Your task to perform on an android device: Clear the shopping cart on bestbuy. Add "sony triple a" to the cart on bestbuy Image 0: 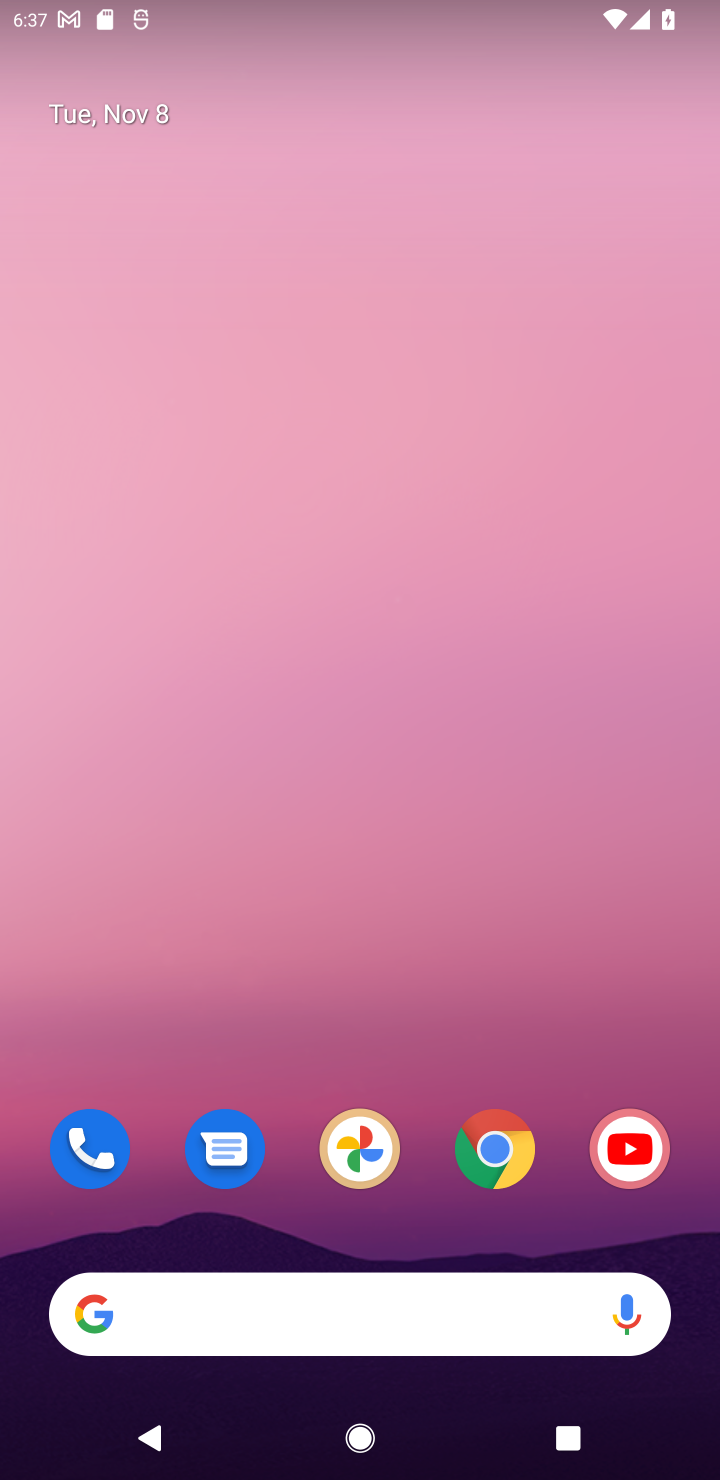
Step 0: click (493, 1127)
Your task to perform on an android device: Clear the shopping cart on bestbuy. Add "sony triple a" to the cart on bestbuy Image 1: 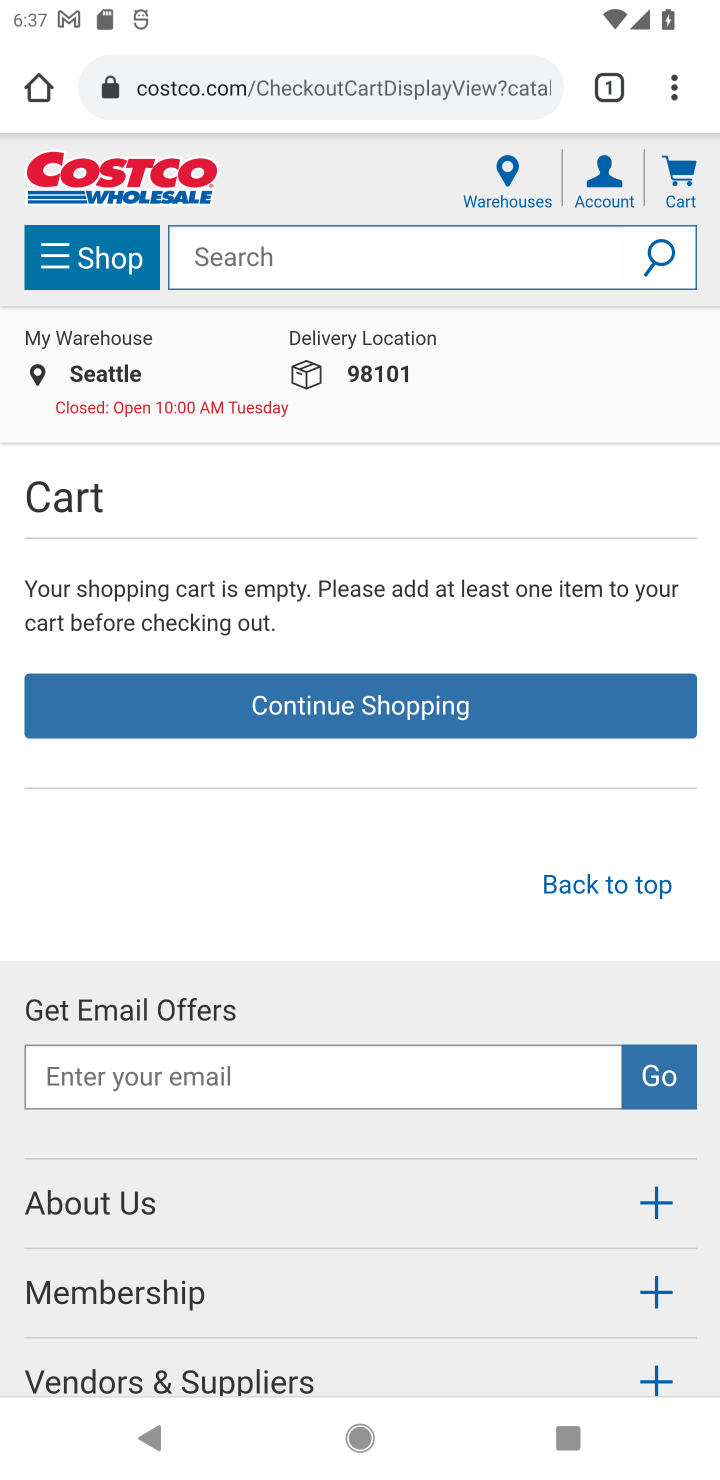
Step 1: click (386, 88)
Your task to perform on an android device: Clear the shopping cart on bestbuy. Add "sony triple a" to the cart on bestbuy Image 2: 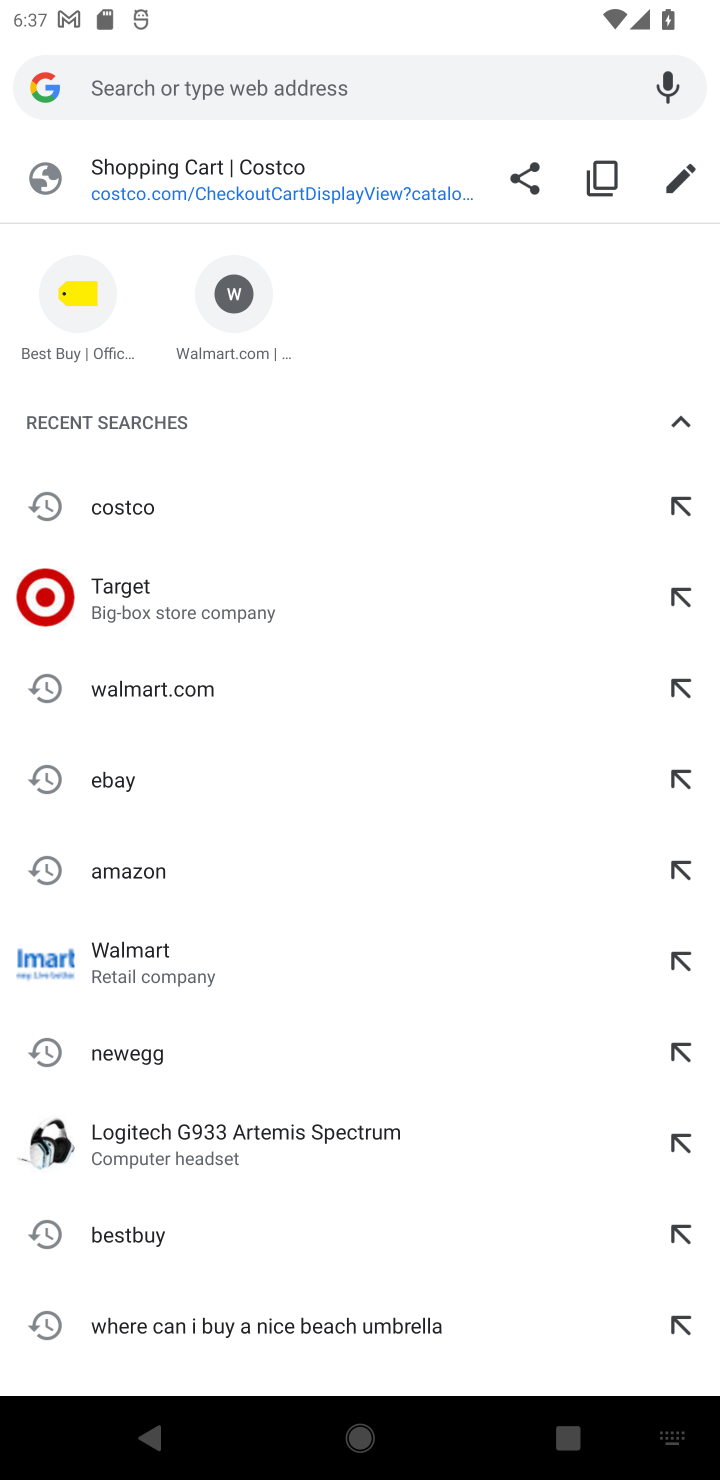
Step 2: press enter
Your task to perform on an android device: Clear the shopping cart on bestbuy. Add "sony triple a" to the cart on bestbuy Image 3: 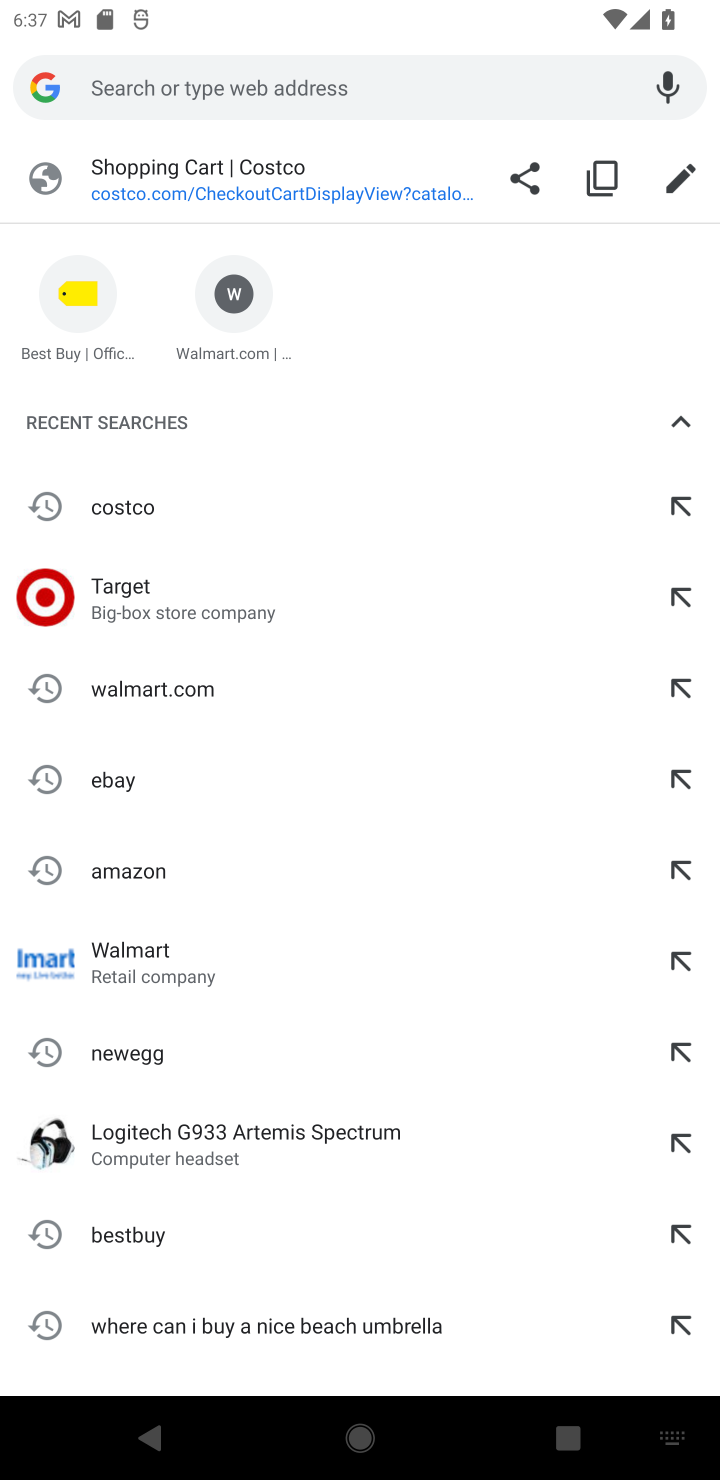
Step 3: type "bestbuy"
Your task to perform on an android device: Clear the shopping cart on bestbuy. Add "sony triple a" to the cart on bestbuy Image 4: 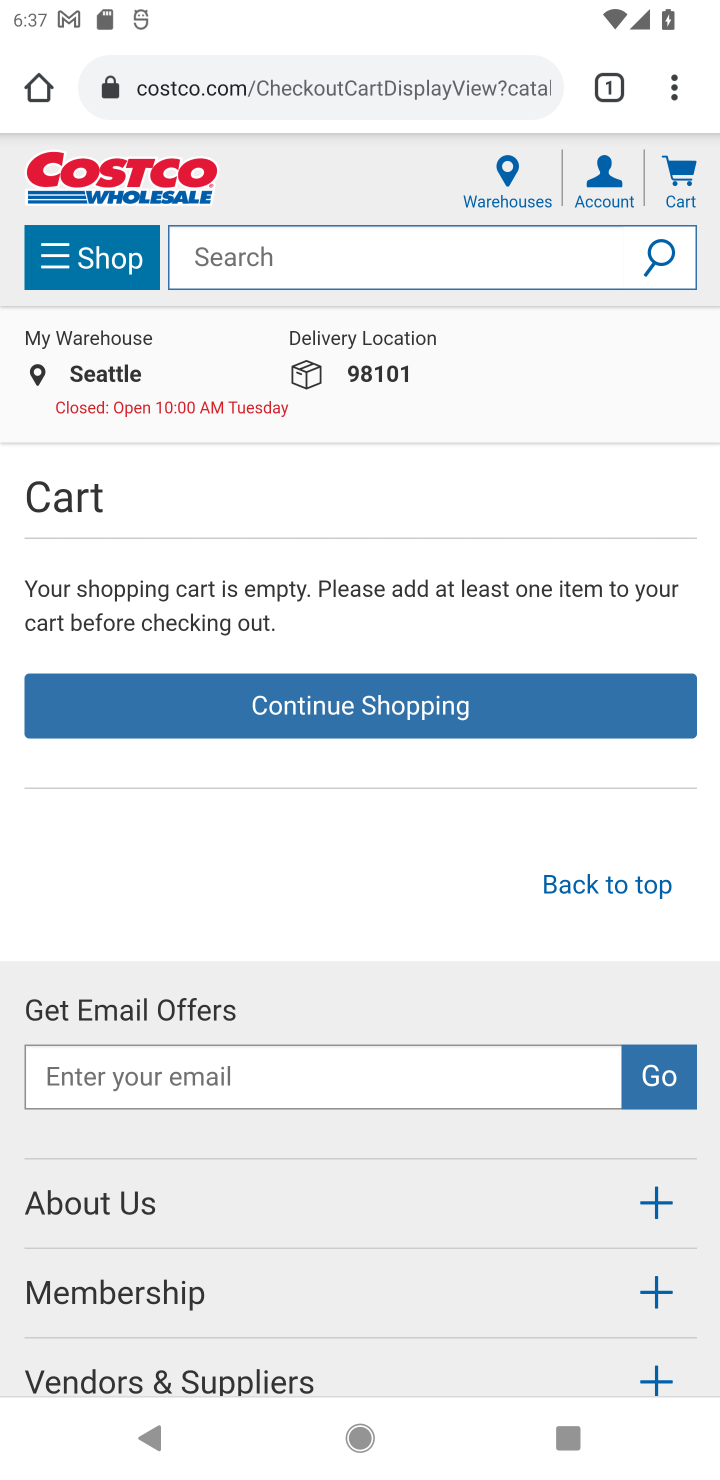
Step 4: click (272, 73)
Your task to perform on an android device: Clear the shopping cart on bestbuy. Add "sony triple a" to the cart on bestbuy Image 5: 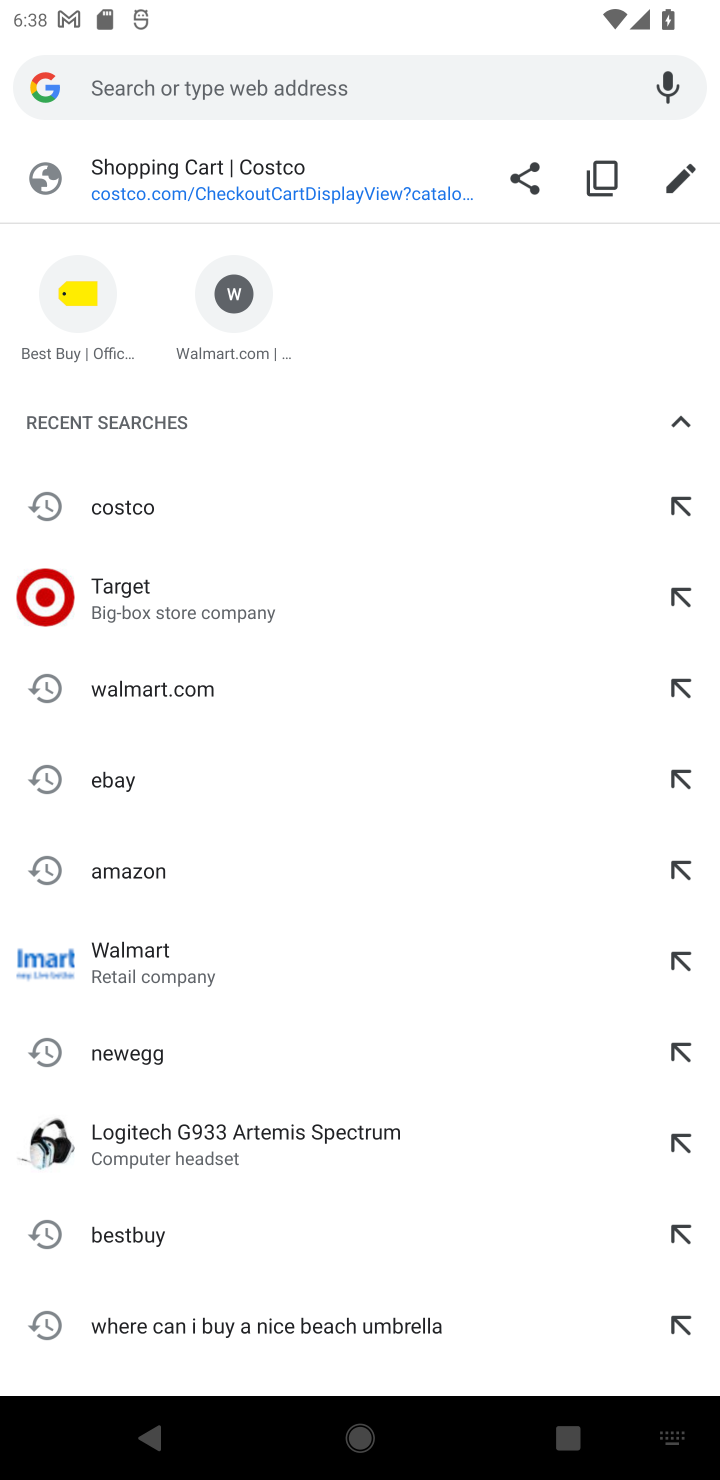
Step 5: press enter
Your task to perform on an android device: Clear the shopping cart on bestbuy. Add "sony triple a" to the cart on bestbuy Image 6: 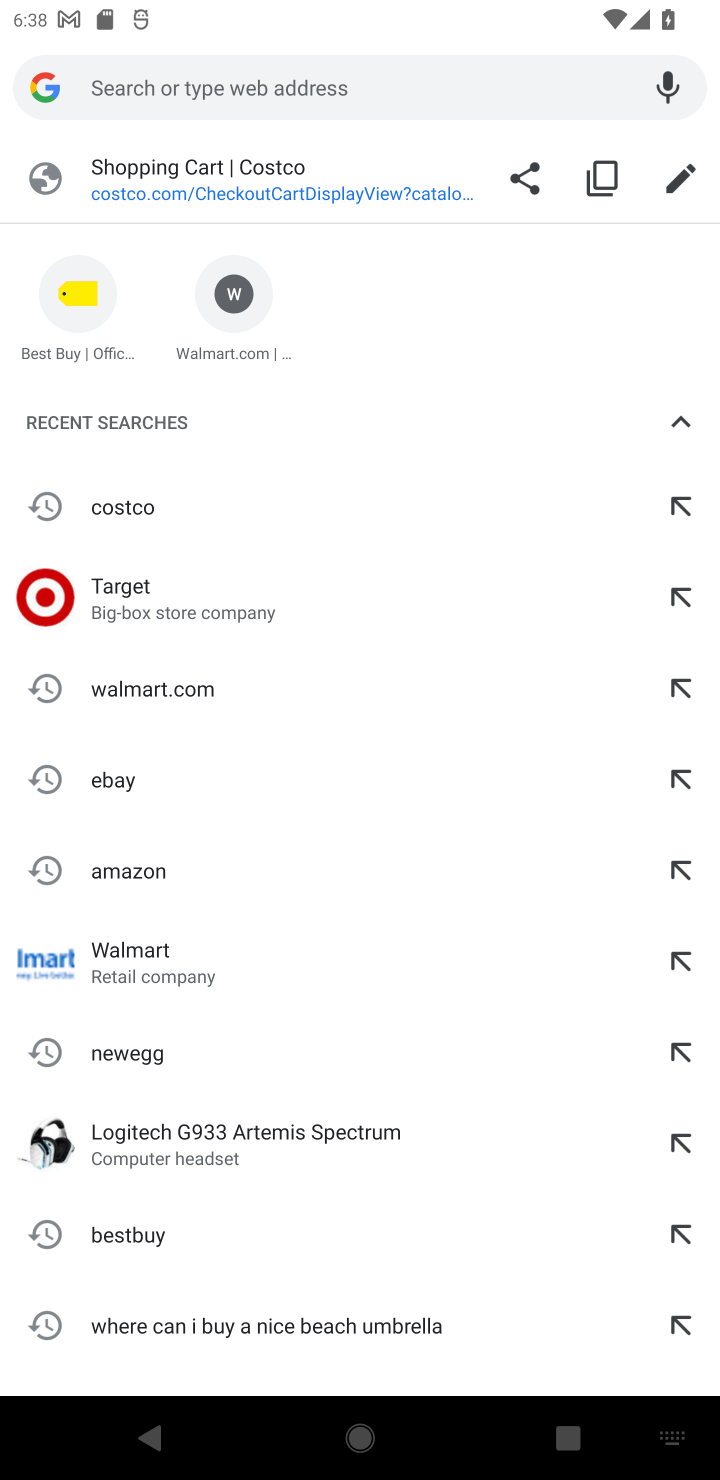
Step 6: type "bestbuy"
Your task to perform on an android device: Clear the shopping cart on bestbuy. Add "sony triple a" to the cart on bestbuy Image 7: 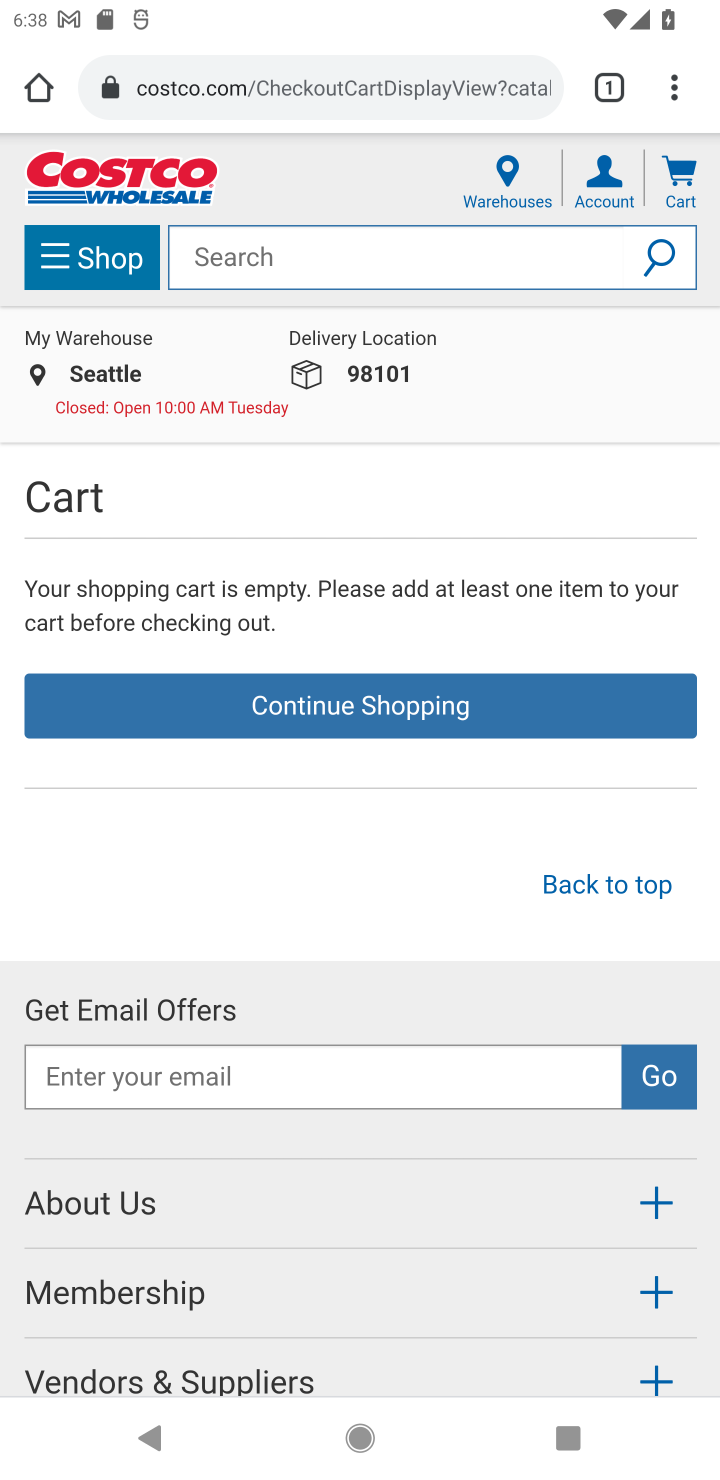
Step 7: click (24, 87)
Your task to perform on an android device: Clear the shopping cart on bestbuy. Add "sony triple a" to the cart on bestbuy Image 8: 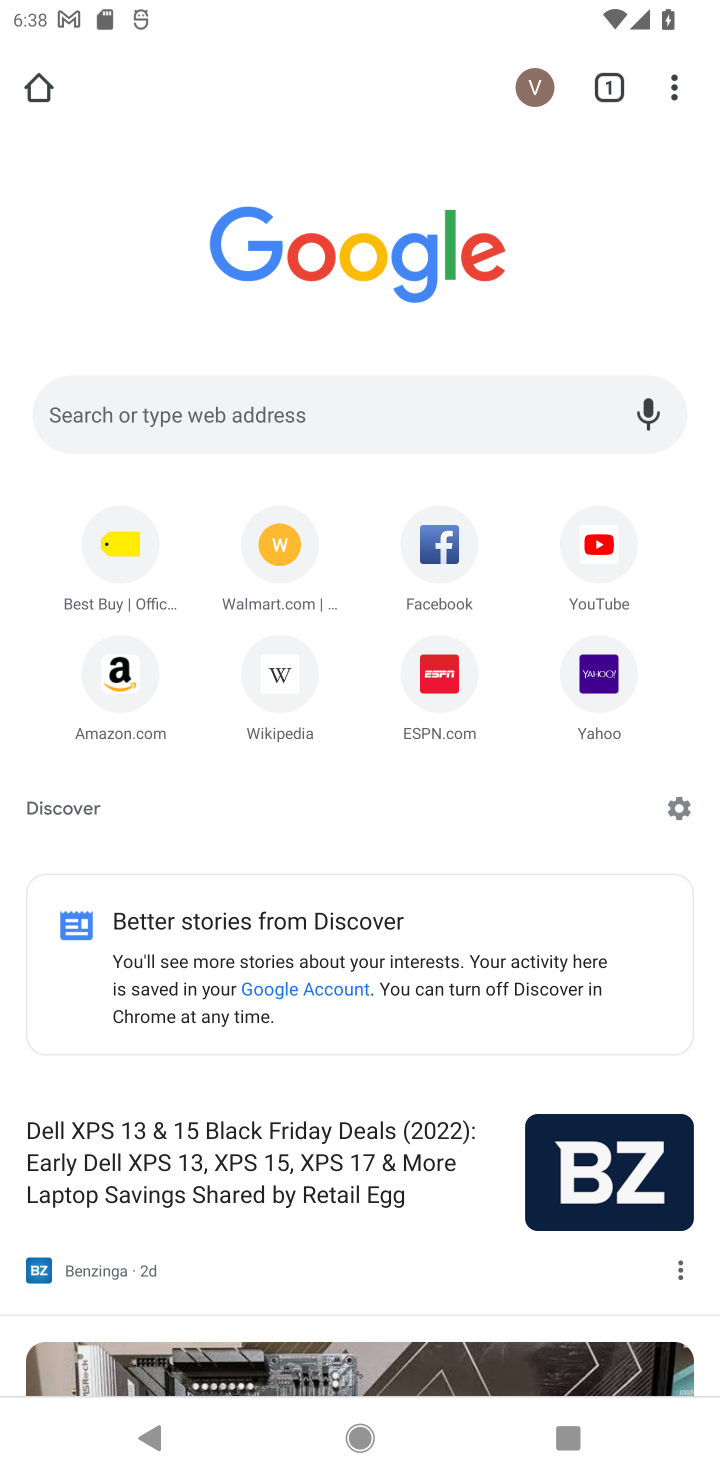
Step 8: click (470, 399)
Your task to perform on an android device: Clear the shopping cart on bestbuy. Add "sony triple a" to the cart on bestbuy Image 9: 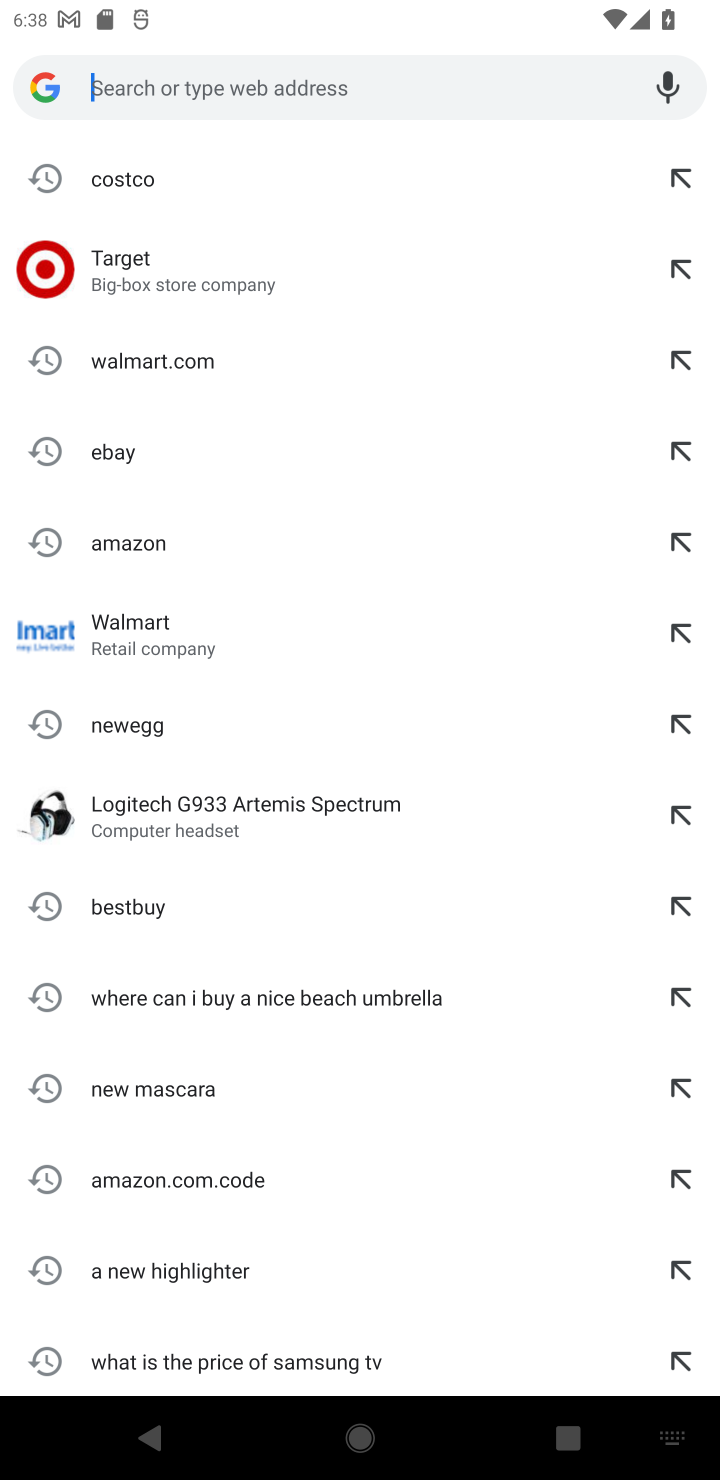
Step 9: click (139, 905)
Your task to perform on an android device: Clear the shopping cart on bestbuy. Add "sony triple a" to the cart on bestbuy Image 10: 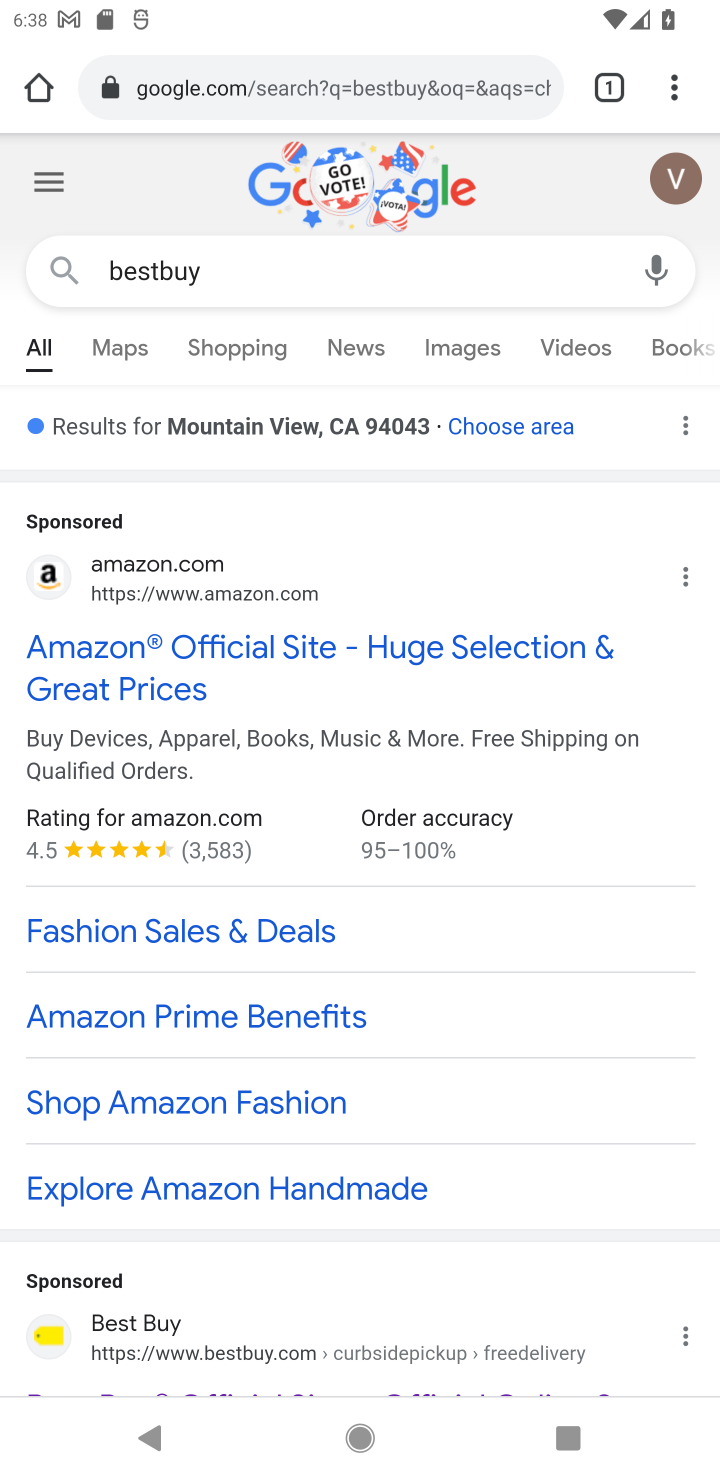
Step 10: click (310, 81)
Your task to perform on an android device: Clear the shopping cart on bestbuy. Add "sony triple a" to the cart on bestbuy Image 11: 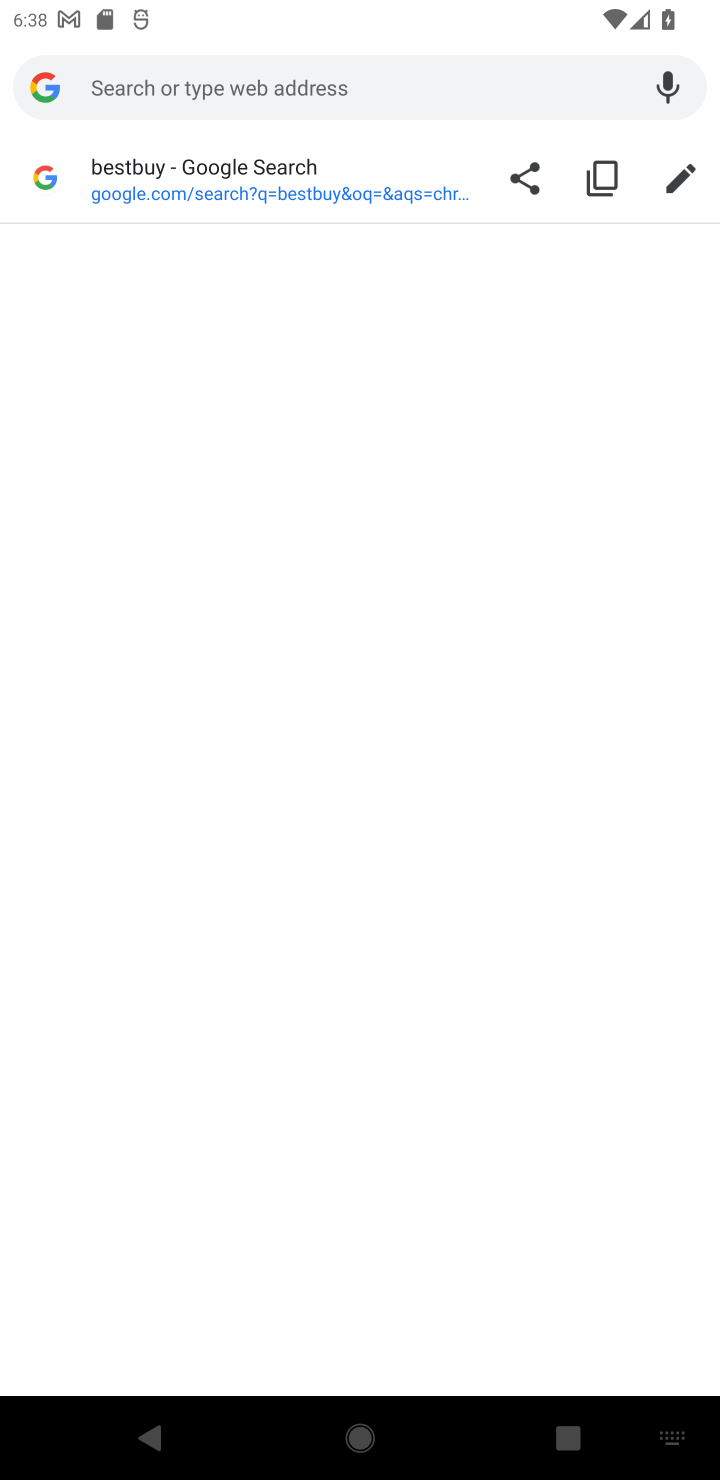
Step 11: press enter
Your task to perform on an android device: Clear the shopping cart on bestbuy. Add "sony triple a" to the cart on bestbuy Image 12: 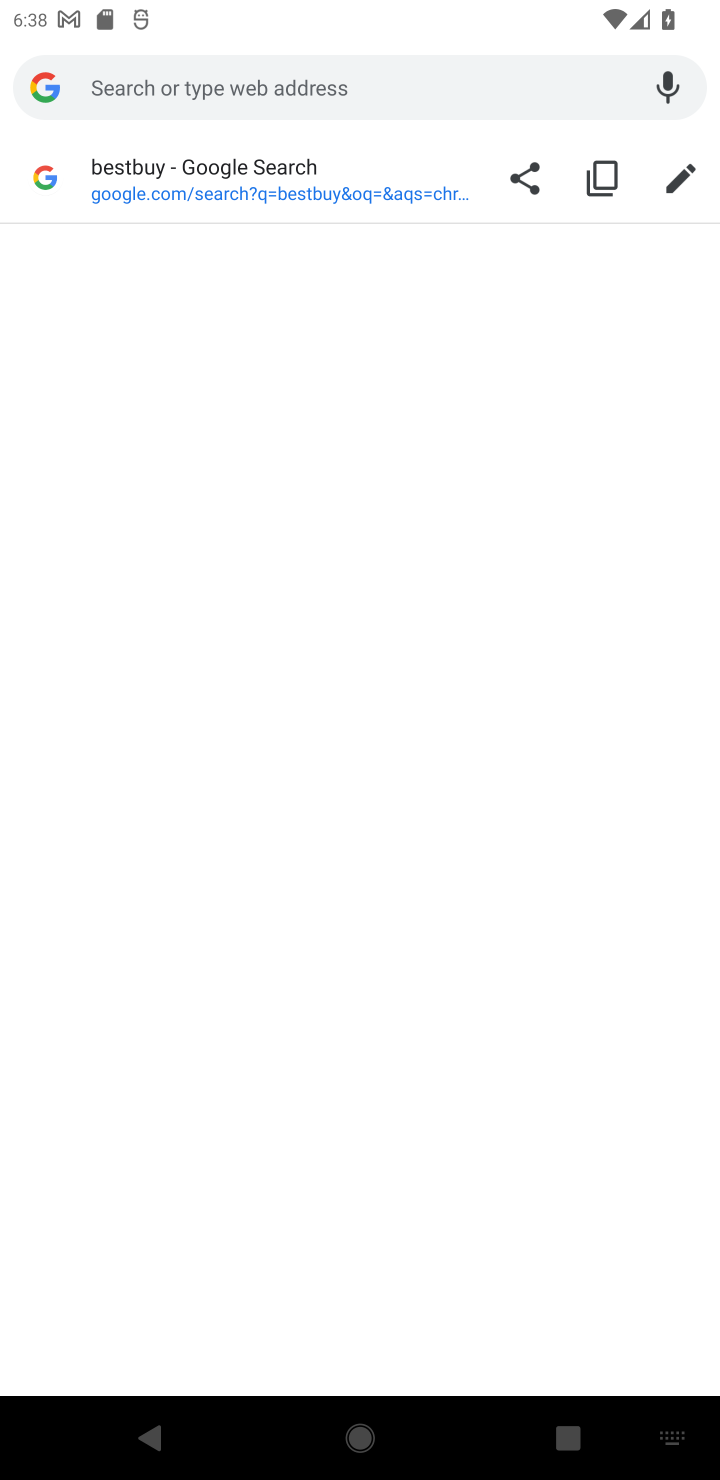
Step 12: type "bestbuy"
Your task to perform on an android device: Clear the shopping cart on bestbuy. Add "sony triple a" to the cart on bestbuy Image 13: 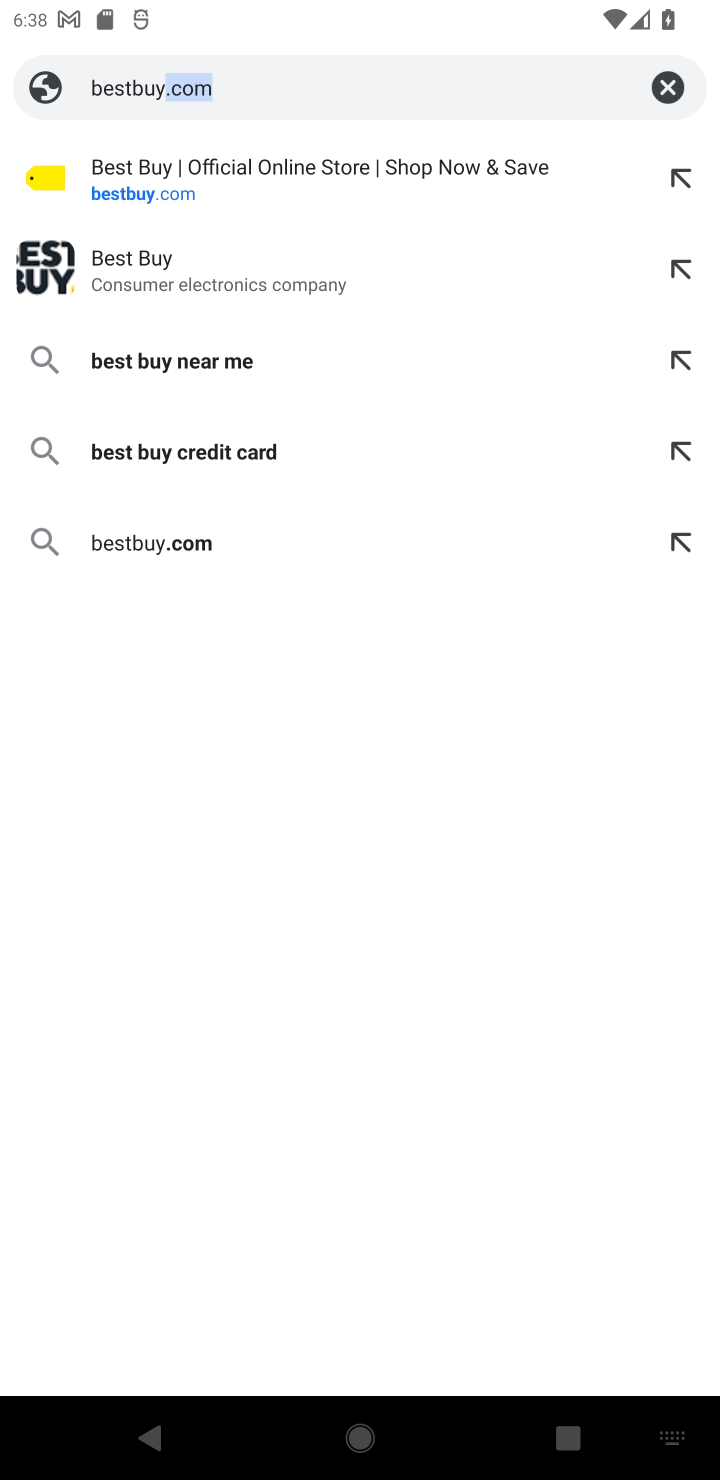
Step 13: click (425, 91)
Your task to perform on an android device: Clear the shopping cart on bestbuy. Add "sony triple a" to the cart on bestbuy Image 14: 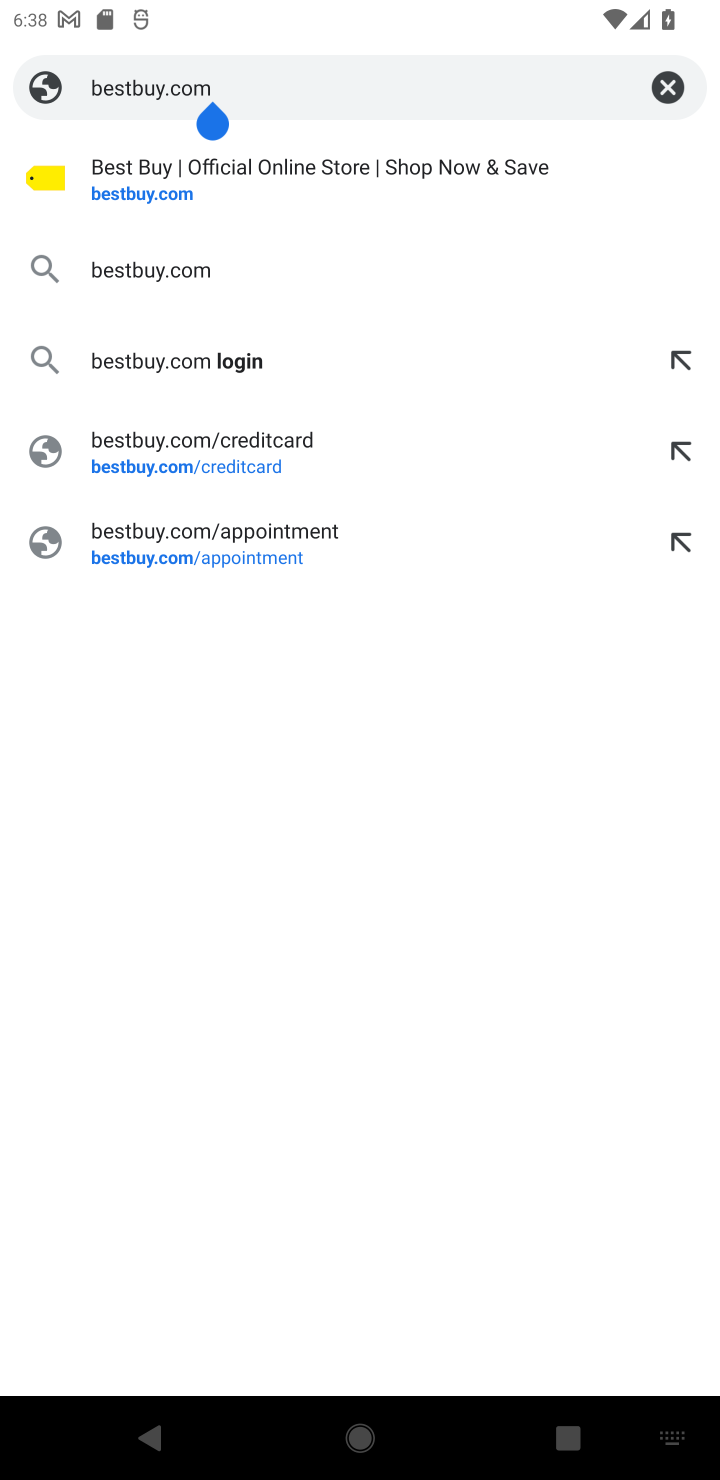
Step 14: click (174, 275)
Your task to perform on an android device: Clear the shopping cart on bestbuy. Add "sony triple a" to the cart on bestbuy Image 15: 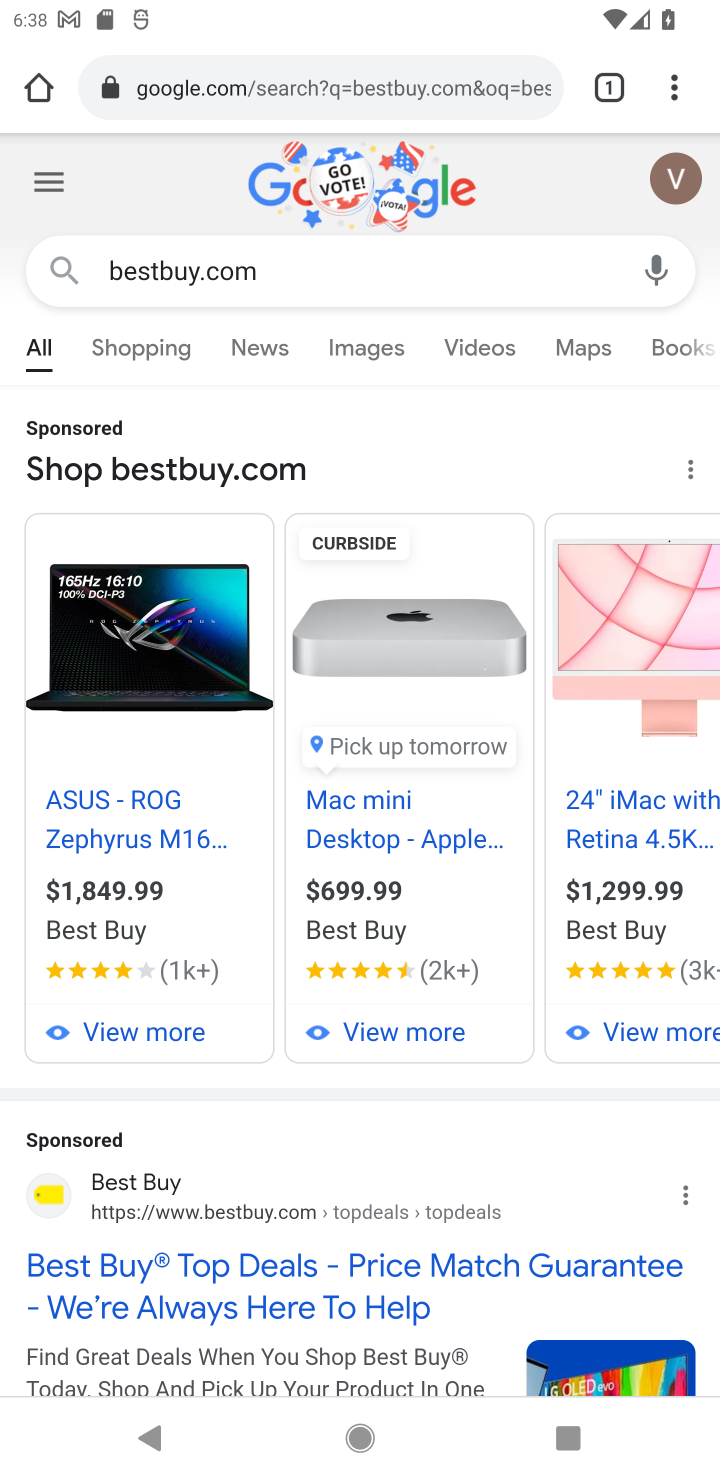
Step 15: click (231, 1216)
Your task to perform on an android device: Clear the shopping cart on bestbuy. Add "sony triple a" to the cart on bestbuy Image 16: 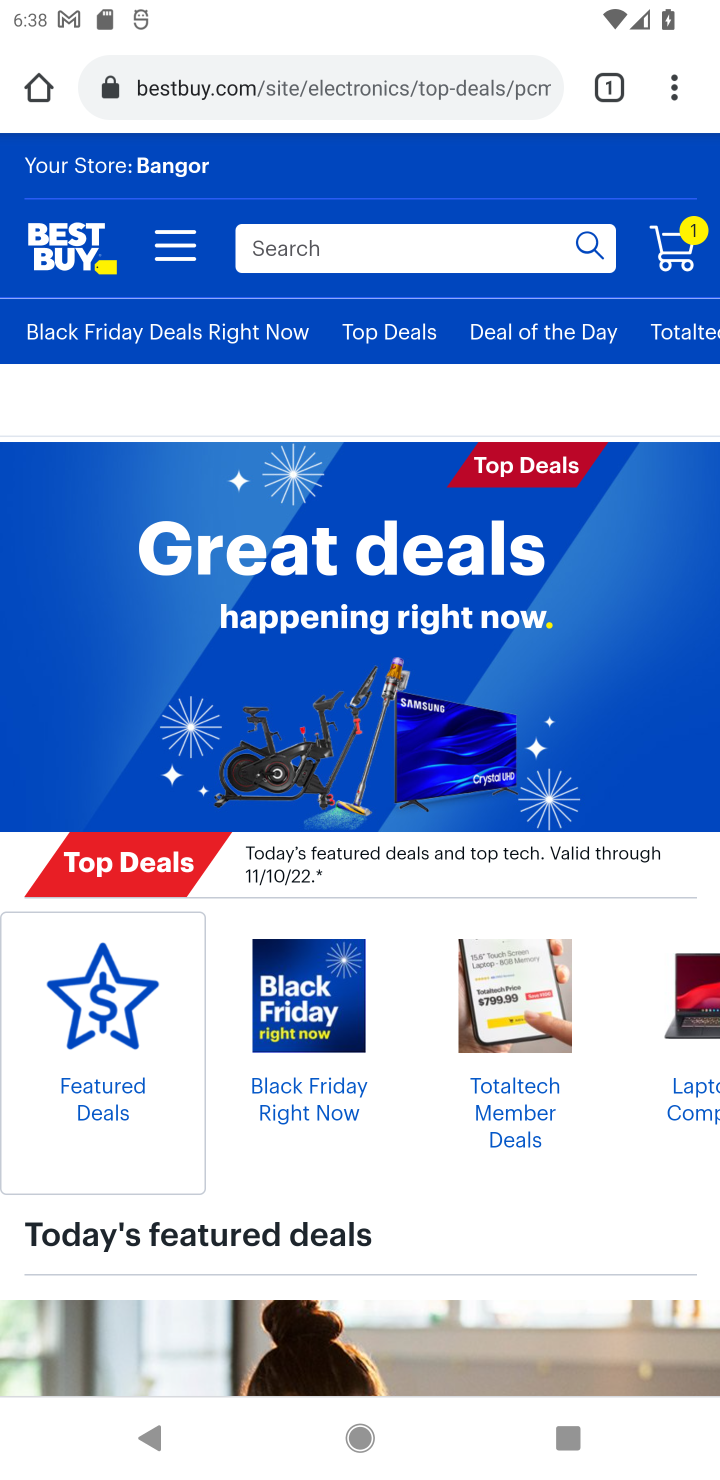
Step 16: click (476, 242)
Your task to perform on an android device: Clear the shopping cart on bestbuy. Add "sony triple a" to the cart on bestbuy Image 17: 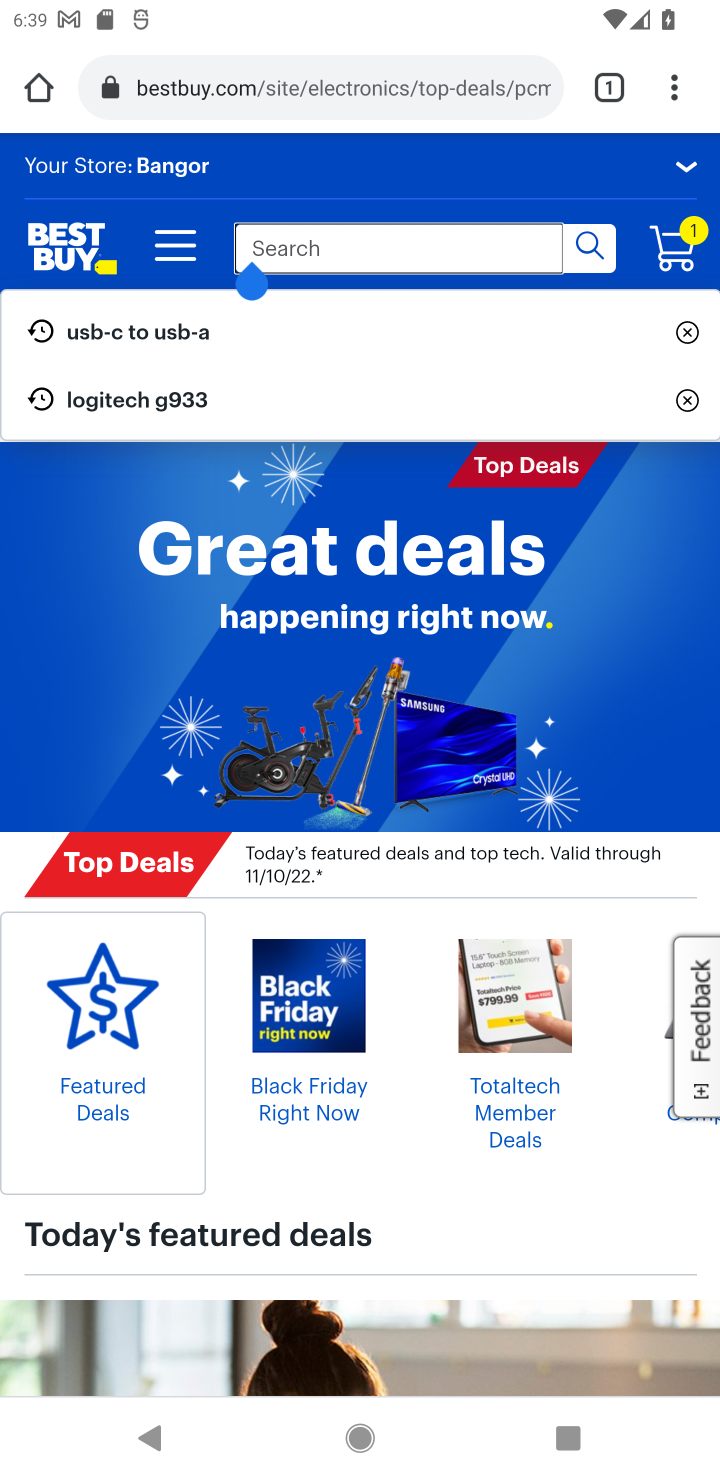
Step 17: type "sony triple a"
Your task to perform on an android device: Clear the shopping cart on bestbuy. Add "sony triple a" to the cart on bestbuy Image 18: 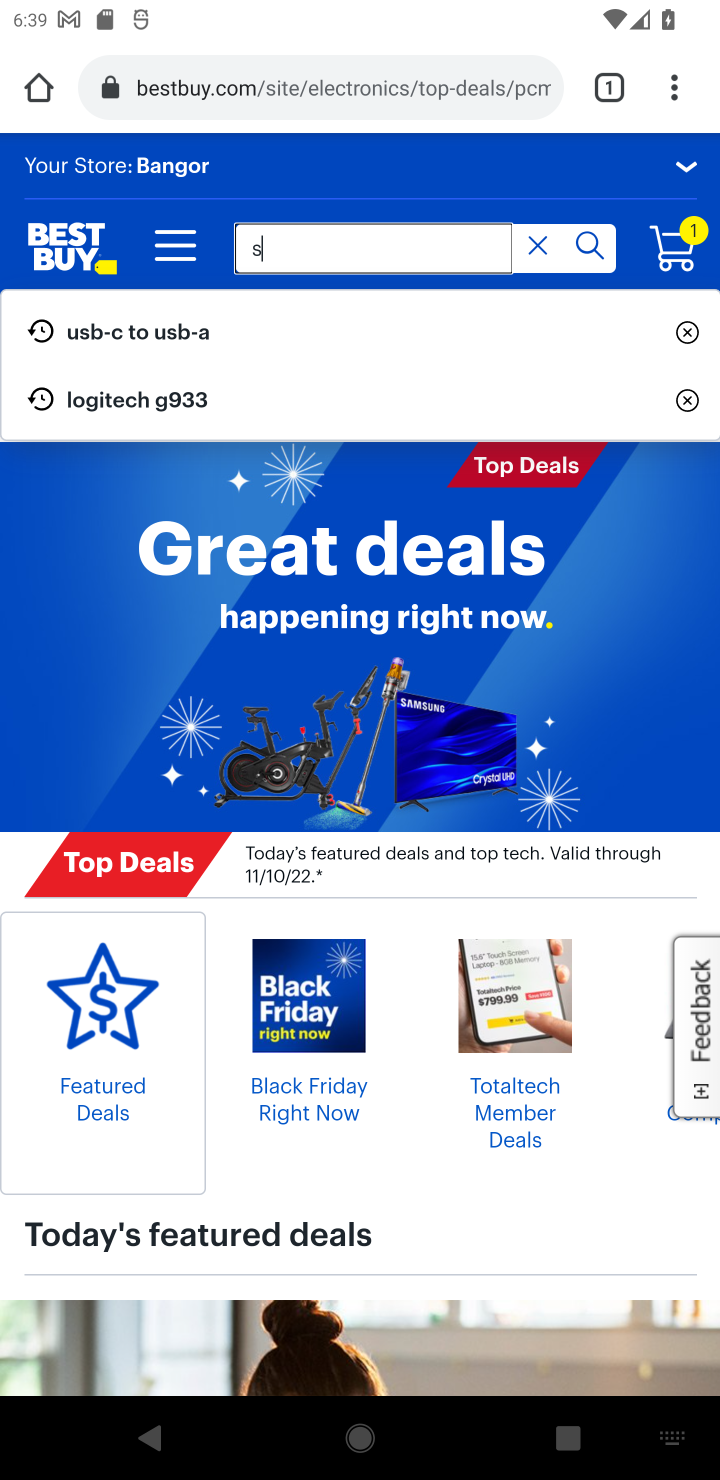
Step 18: press enter
Your task to perform on an android device: Clear the shopping cart on bestbuy. Add "sony triple a" to the cart on bestbuy Image 19: 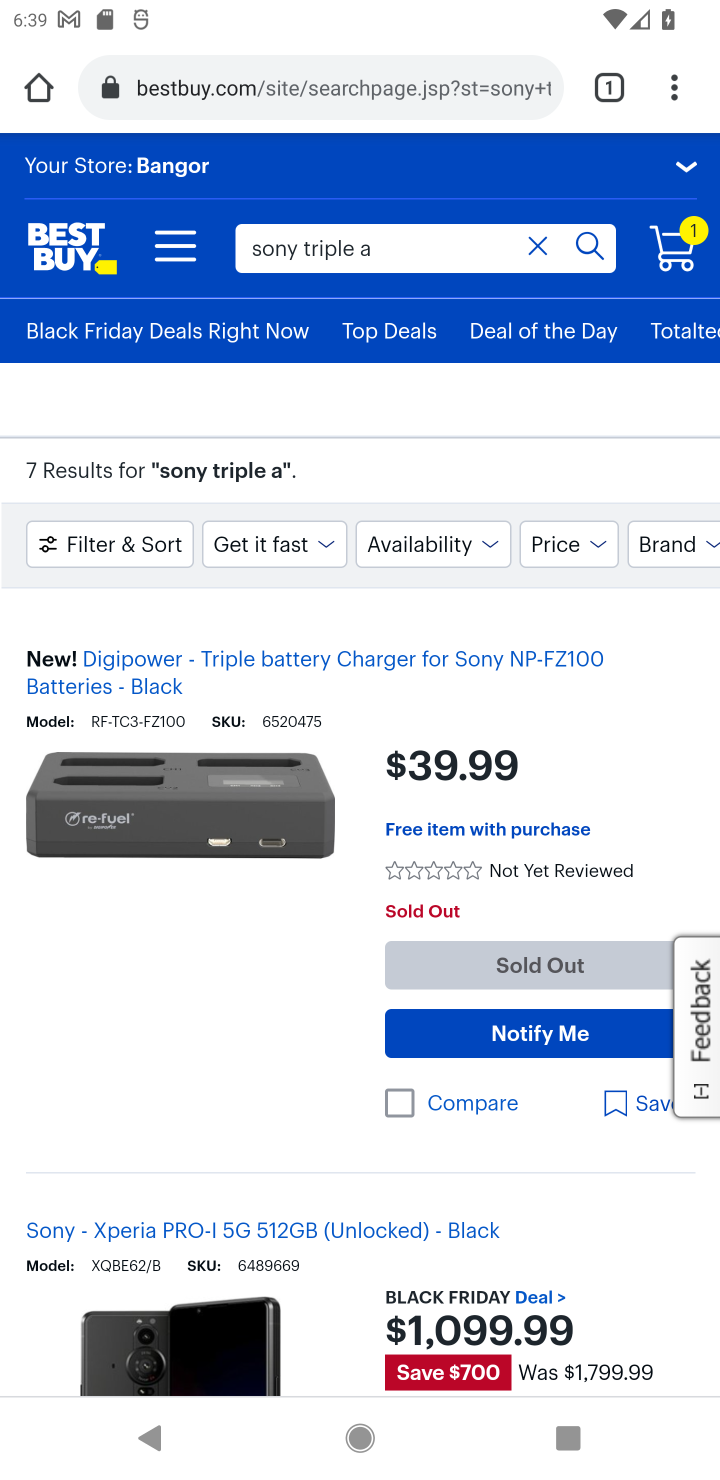
Step 19: task complete